Your task to perform on an android device: Open Google Image 0: 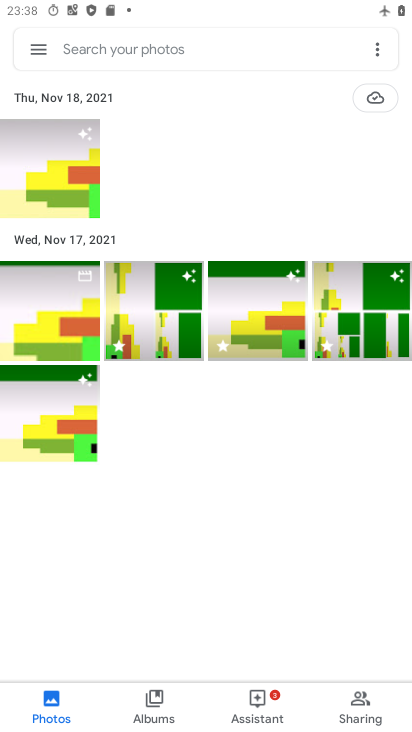
Step 0: press home button
Your task to perform on an android device: Open Google Image 1: 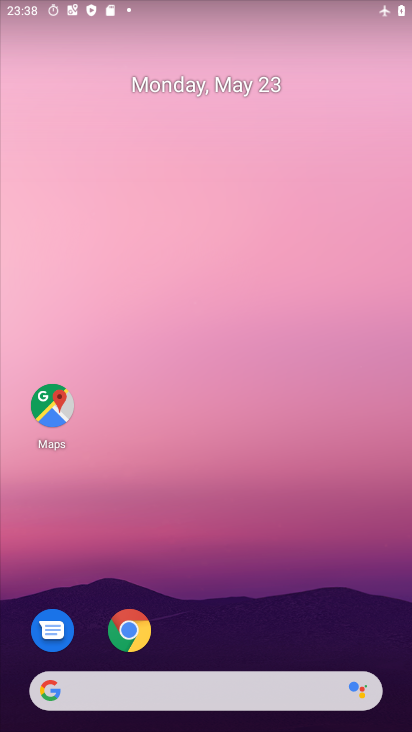
Step 1: drag from (316, 647) to (285, 14)
Your task to perform on an android device: Open Google Image 2: 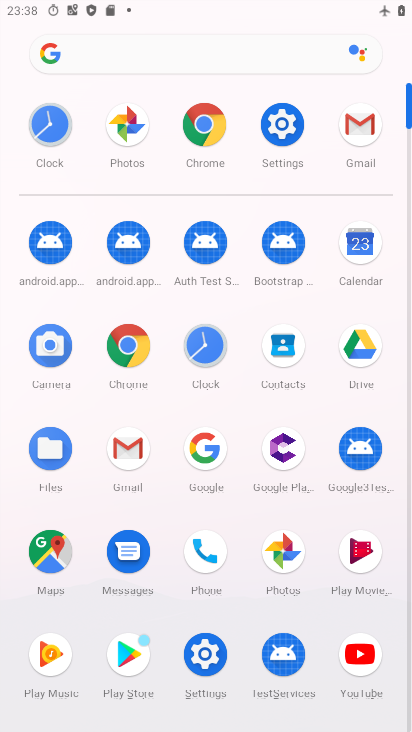
Step 2: click (202, 457)
Your task to perform on an android device: Open Google Image 3: 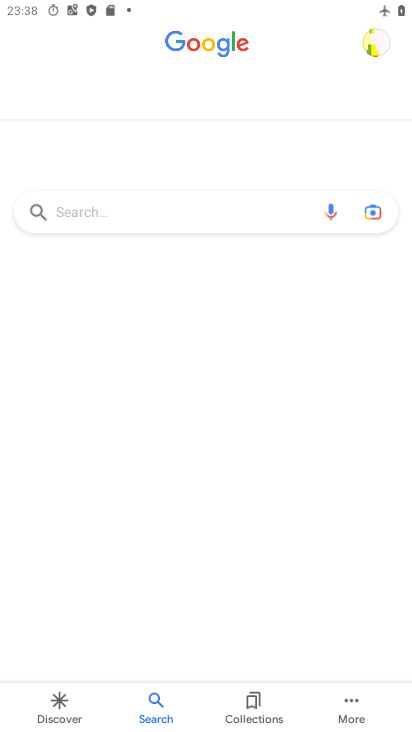
Step 3: task complete